Your task to perform on an android device: Open Android settings Image 0: 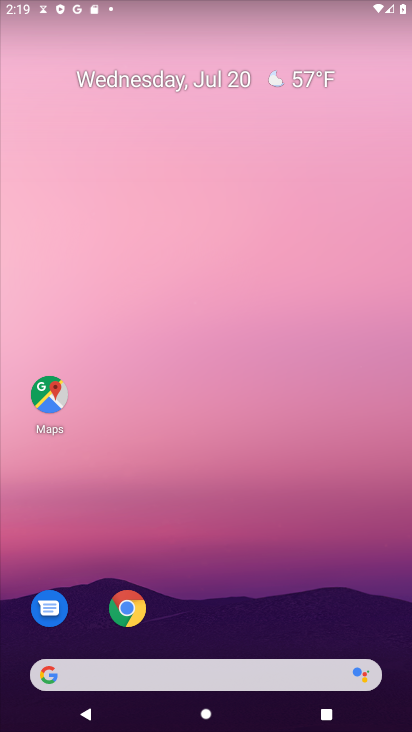
Step 0: drag from (173, 577) to (169, 266)
Your task to perform on an android device: Open Android settings Image 1: 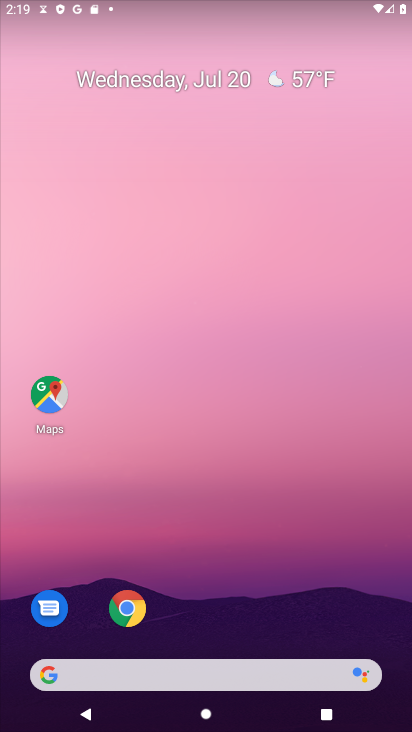
Step 1: drag from (186, 547) to (233, 12)
Your task to perform on an android device: Open Android settings Image 2: 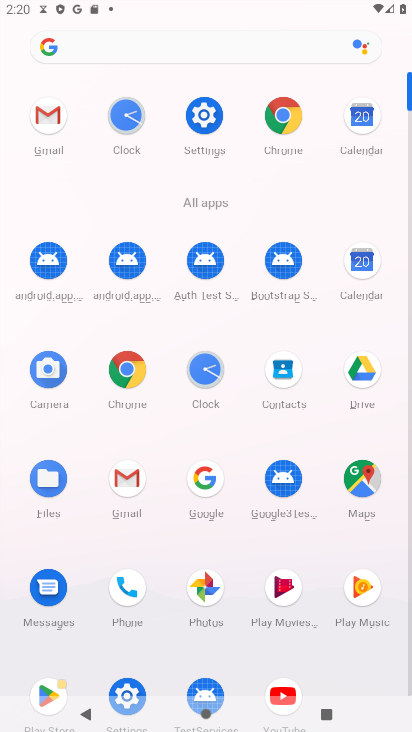
Step 2: click (198, 120)
Your task to perform on an android device: Open Android settings Image 3: 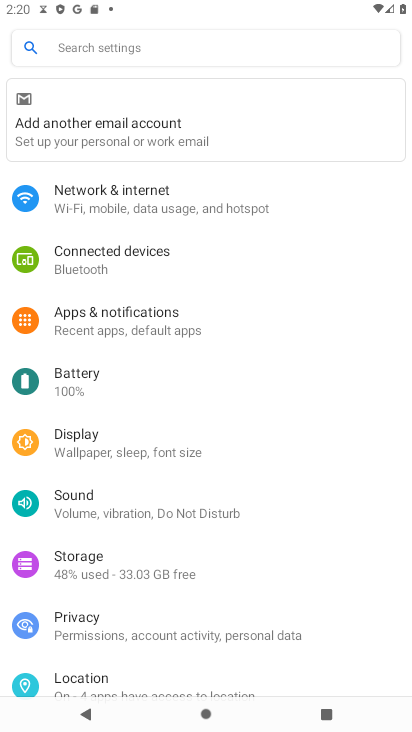
Step 3: drag from (95, 583) to (130, 246)
Your task to perform on an android device: Open Android settings Image 4: 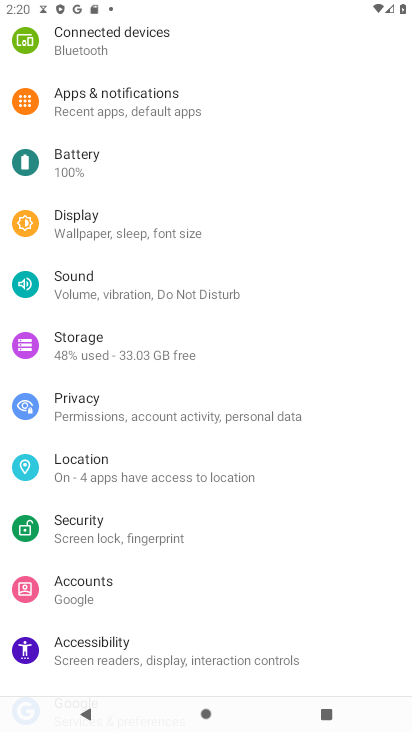
Step 4: drag from (84, 637) to (173, 208)
Your task to perform on an android device: Open Android settings Image 5: 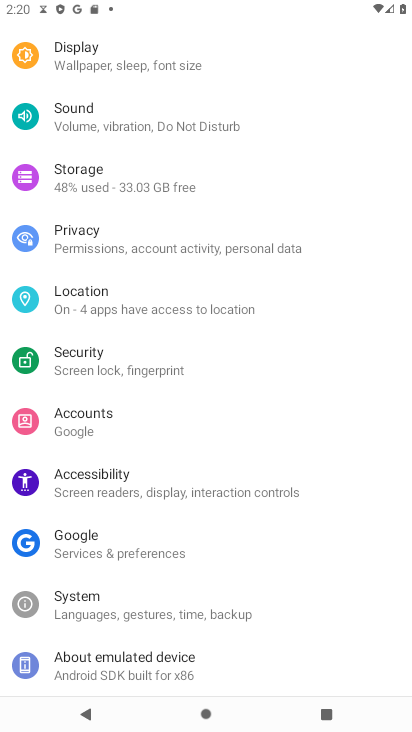
Step 5: click (78, 671)
Your task to perform on an android device: Open Android settings Image 6: 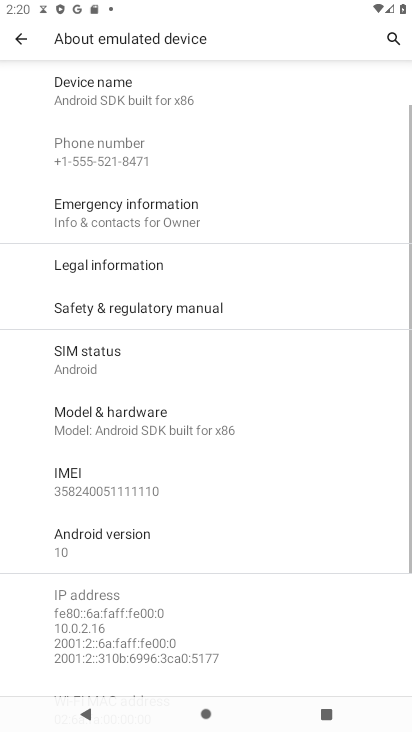
Step 6: click (98, 363)
Your task to perform on an android device: Open Android settings Image 7: 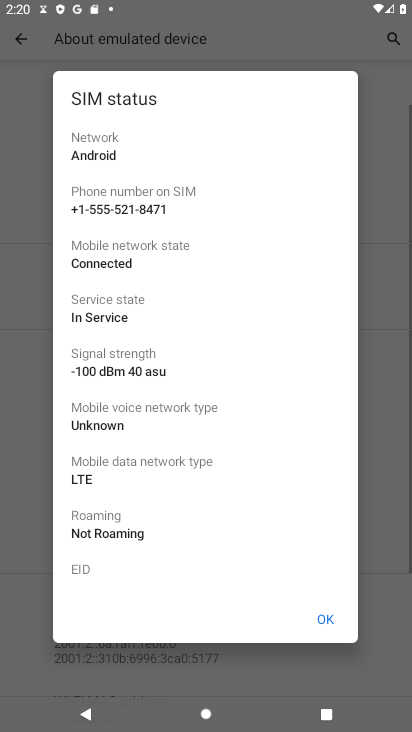
Step 7: task complete